Your task to perform on an android device: change keyboard looks Image 0: 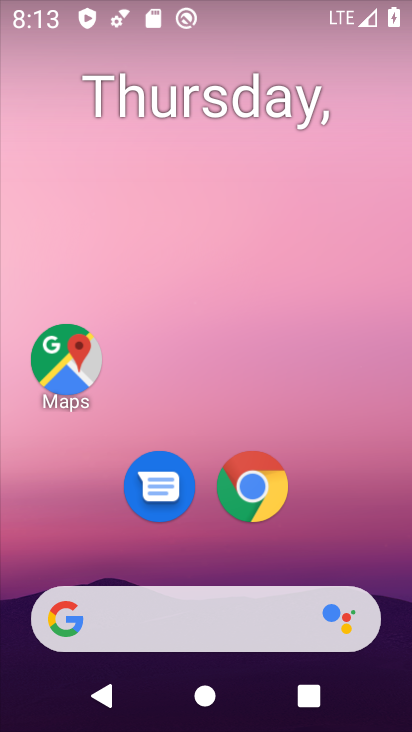
Step 0: drag from (229, 569) to (246, 76)
Your task to perform on an android device: change keyboard looks Image 1: 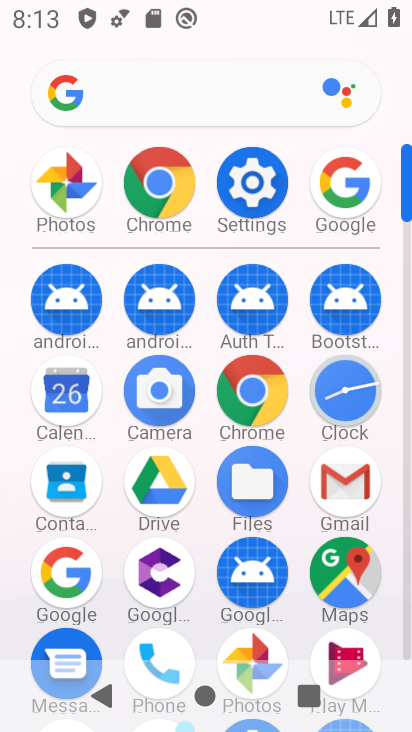
Step 1: click (269, 194)
Your task to perform on an android device: change keyboard looks Image 2: 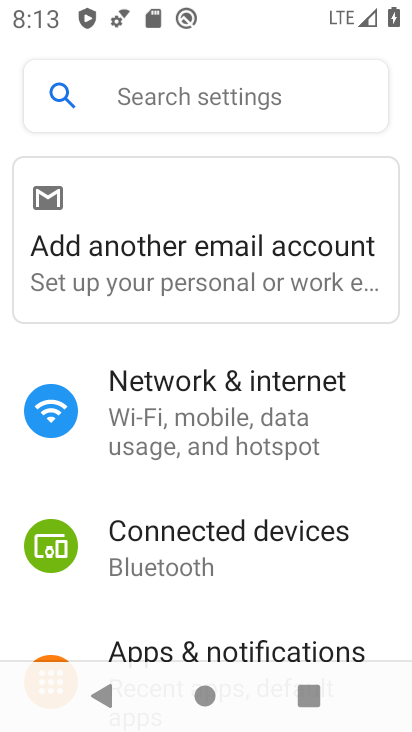
Step 2: drag from (200, 530) to (278, 4)
Your task to perform on an android device: change keyboard looks Image 3: 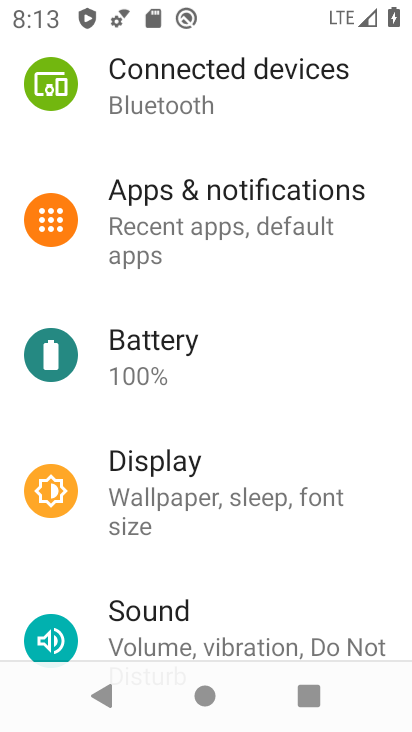
Step 3: drag from (206, 531) to (246, 224)
Your task to perform on an android device: change keyboard looks Image 4: 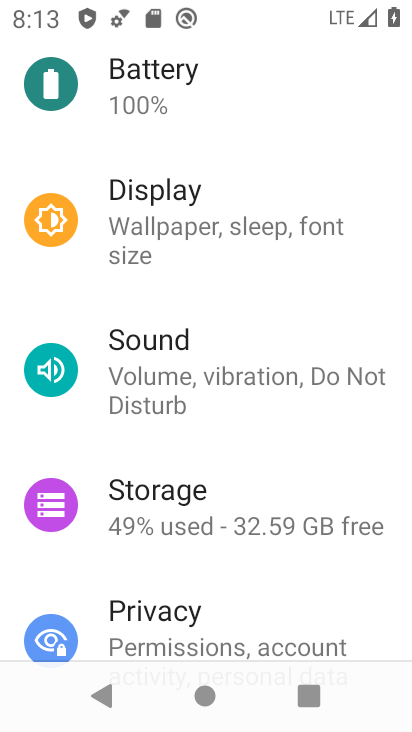
Step 4: drag from (258, 455) to (250, 229)
Your task to perform on an android device: change keyboard looks Image 5: 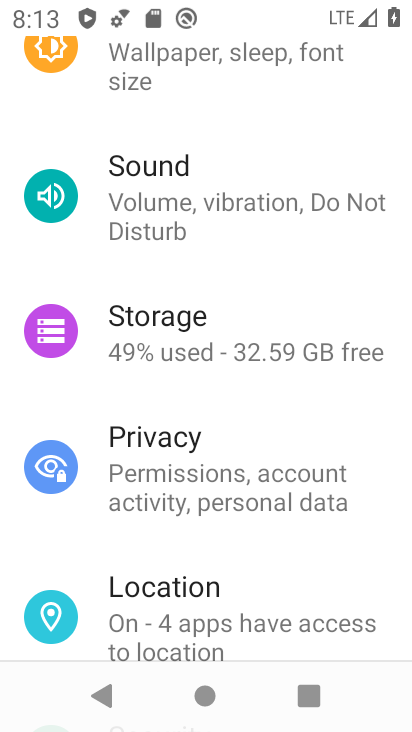
Step 5: drag from (236, 483) to (239, 232)
Your task to perform on an android device: change keyboard looks Image 6: 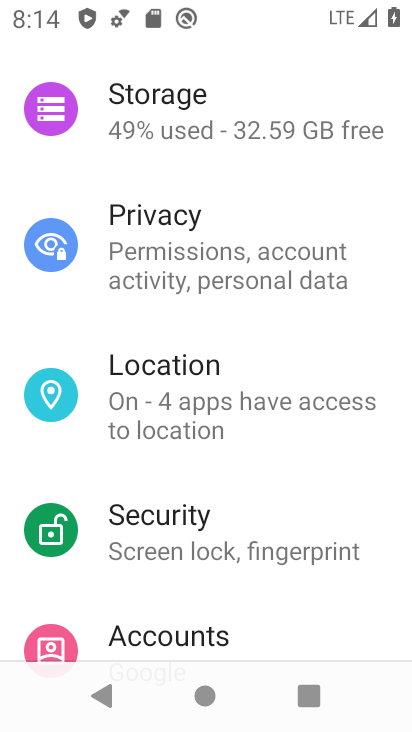
Step 6: drag from (222, 545) to (288, 294)
Your task to perform on an android device: change keyboard looks Image 7: 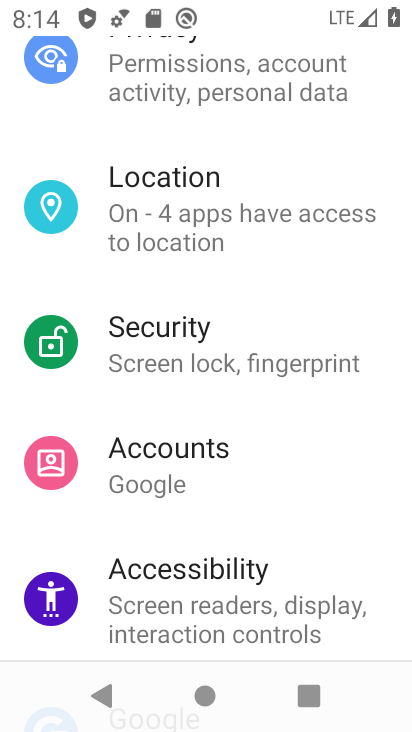
Step 7: drag from (266, 476) to (369, 0)
Your task to perform on an android device: change keyboard looks Image 8: 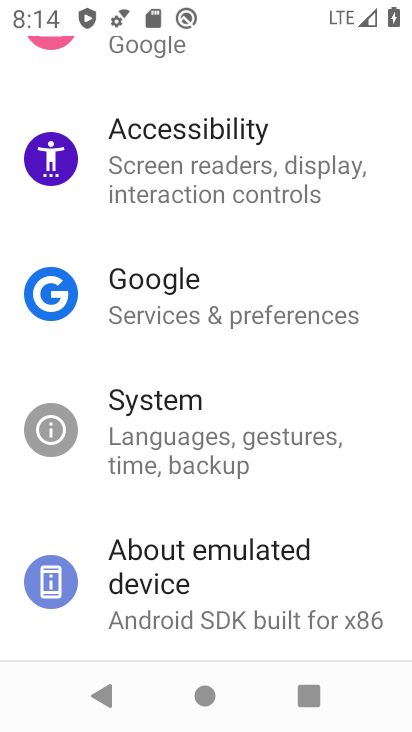
Step 8: click (208, 452)
Your task to perform on an android device: change keyboard looks Image 9: 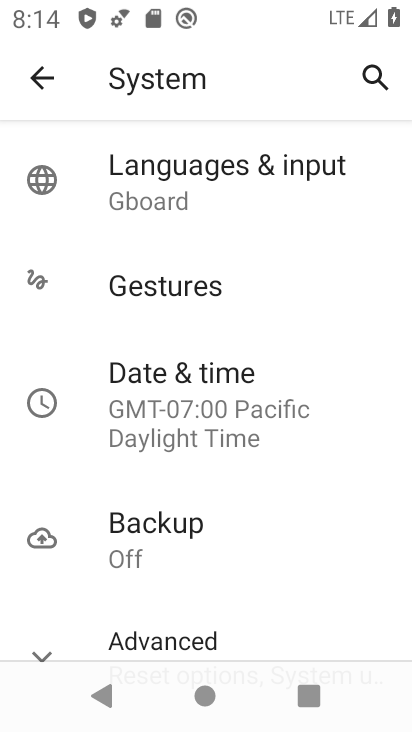
Step 9: click (261, 188)
Your task to perform on an android device: change keyboard looks Image 10: 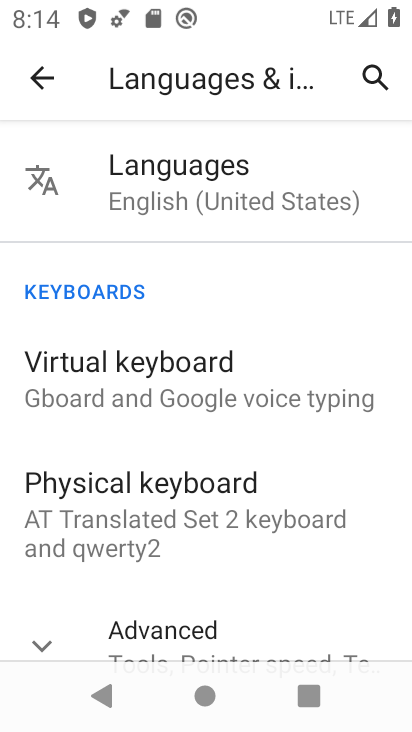
Step 10: click (280, 400)
Your task to perform on an android device: change keyboard looks Image 11: 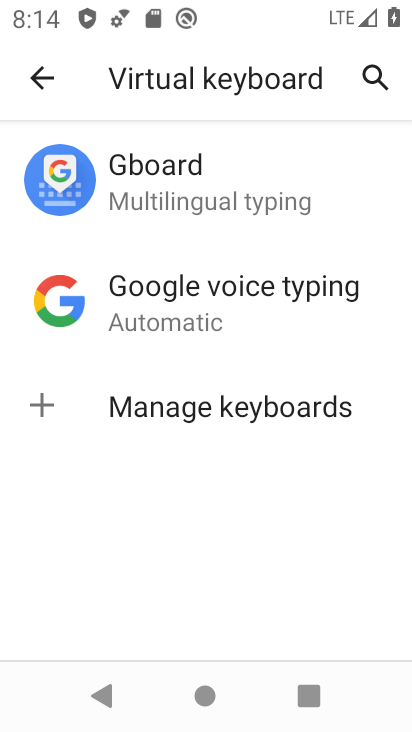
Step 11: click (227, 145)
Your task to perform on an android device: change keyboard looks Image 12: 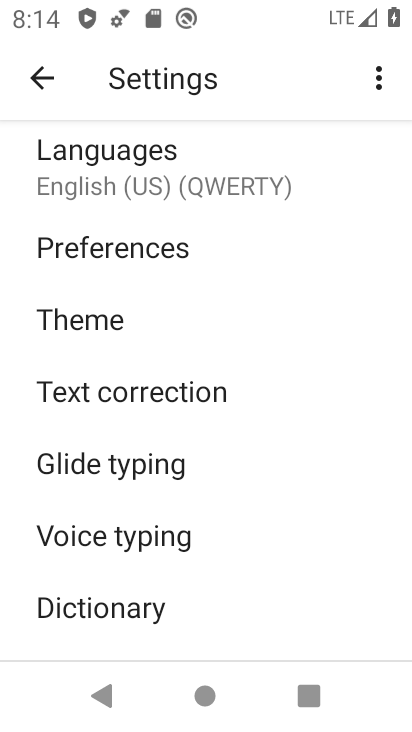
Step 12: click (133, 326)
Your task to perform on an android device: change keyboard looks Image 13: 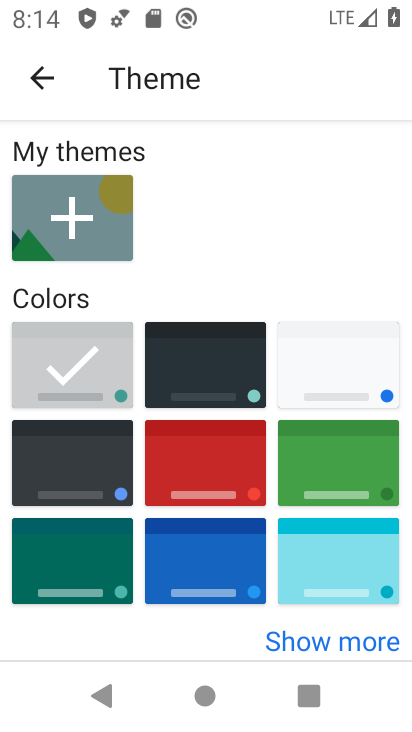
Step 13: click (224, 470)
Your task to perform on an android device: change keyboard looks Image 14: 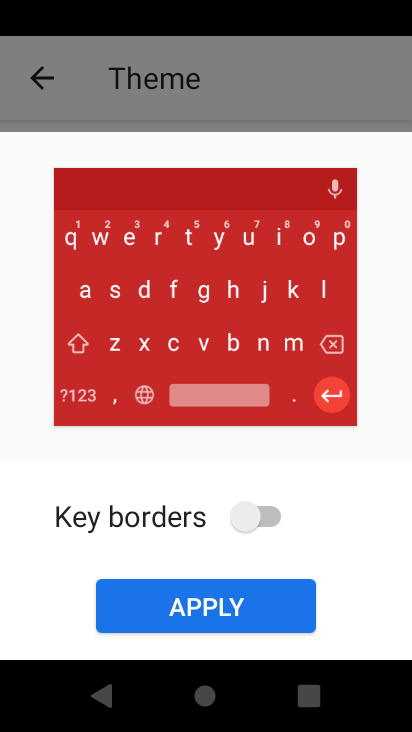
Step 14: click (269, 623)
Your task to perform on an android device: change keyboard looks Image 15: 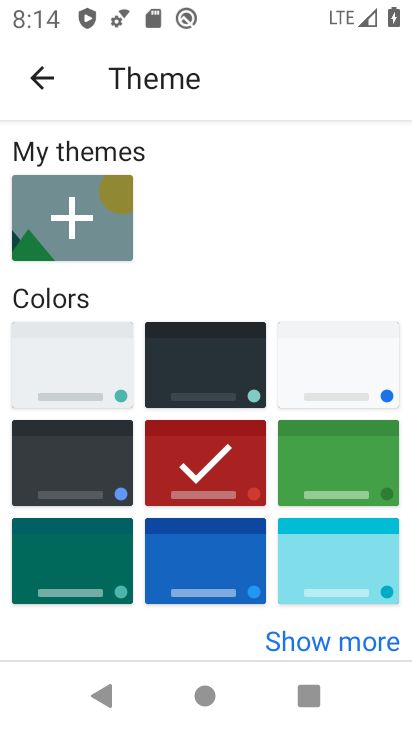
Step 15: task complete